Your task to perform on an android device: turn on translation in the chrome app Image 0: 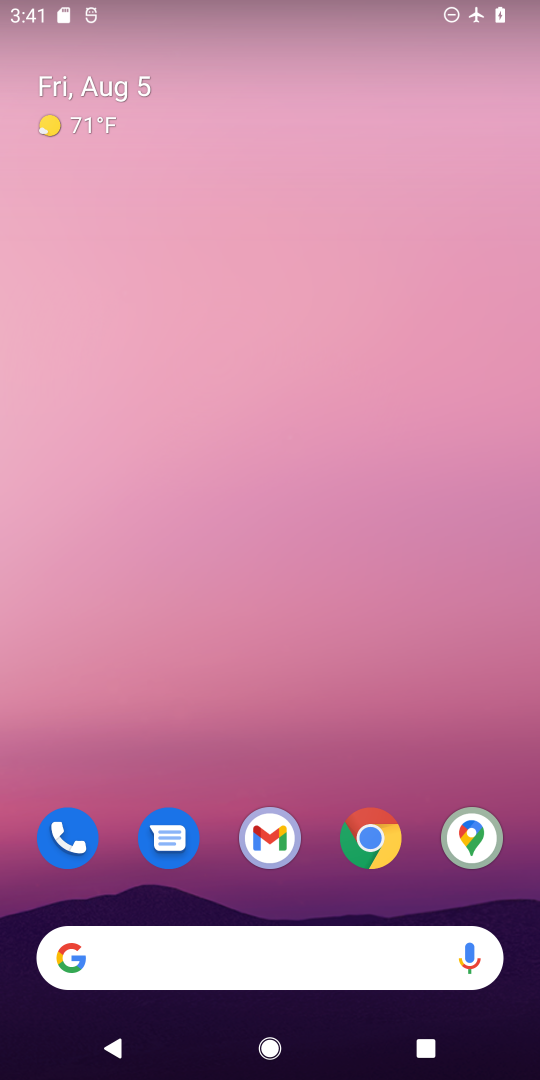
Step 0: drag from (314, 781) to (227, 37)
Your task to perform on an android device: turn on translation in the chrome app Image 1: 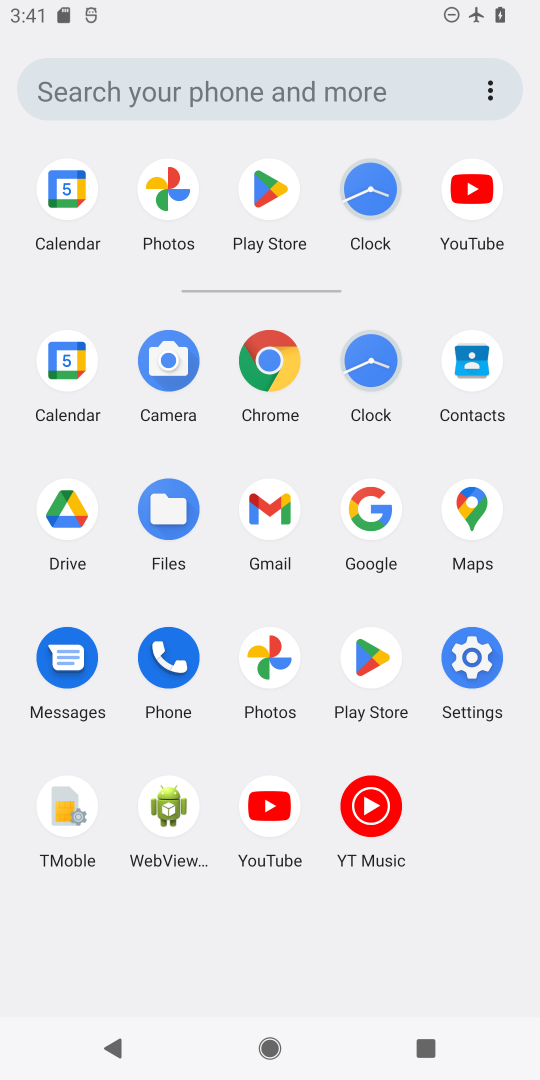
Step 1: click (296, 363)
Your task to perform on an android device: turn on translation in the chrome app Image 2: 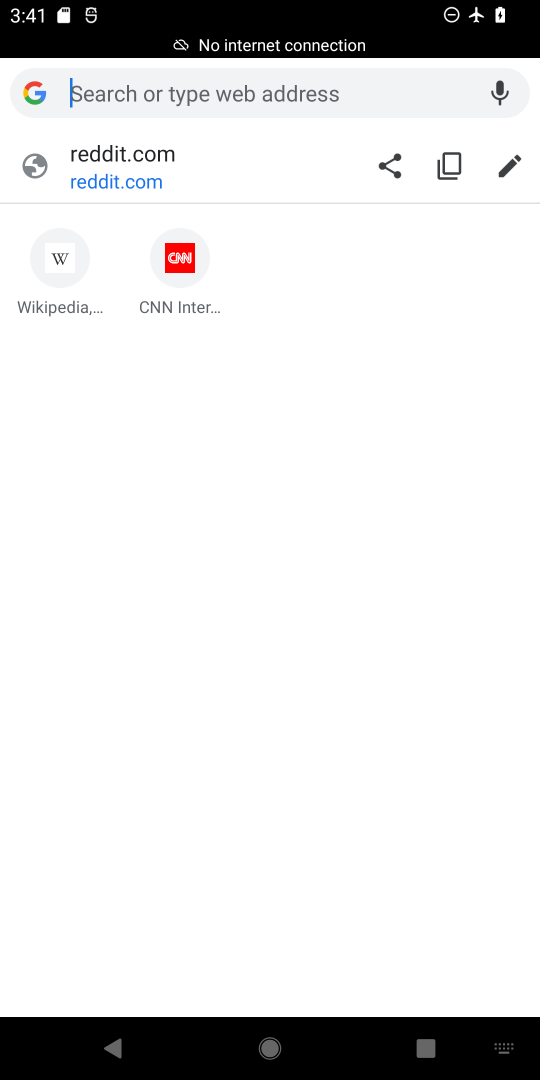
Step 2: press back button
Your task to perform on an android device: turn on translation in the chrome app Image 3: 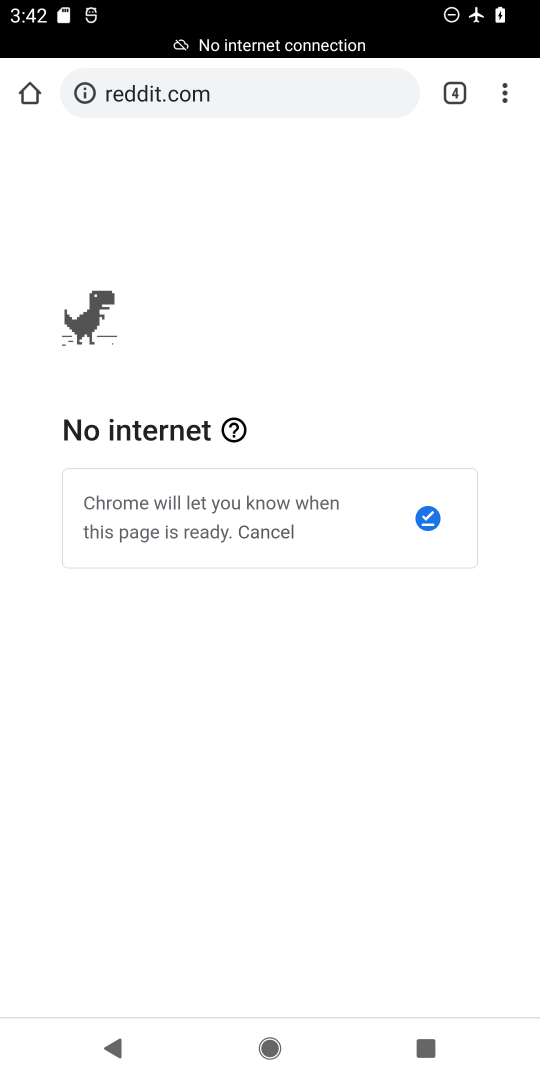
Step 3: click (509, 91)
Your task to perform on an android device: turn on translation in the chrome app Image 4: 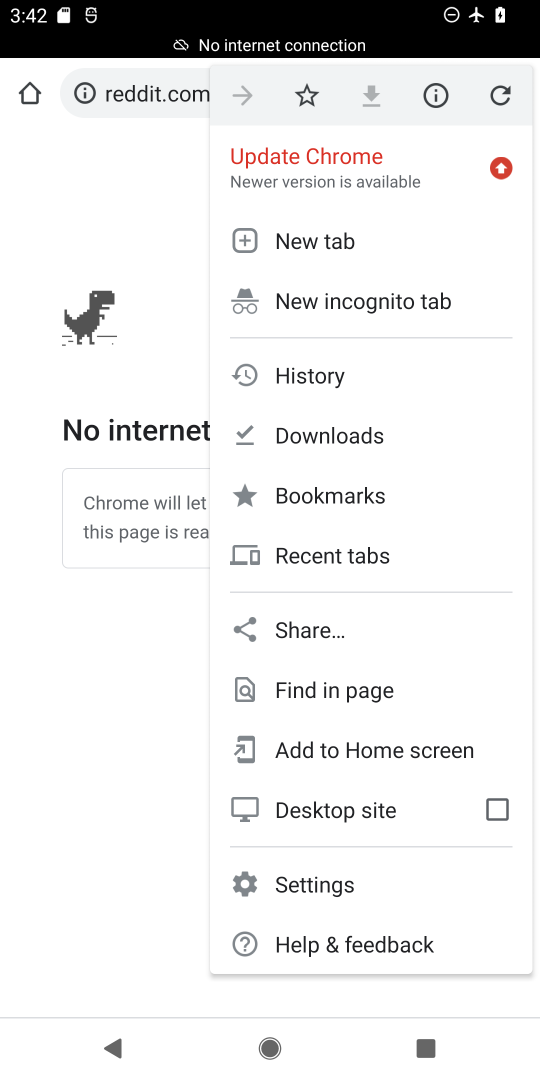
Step 4: click (355, 883)
Your task to perform on an android device: turn on translation in the chrome app Image 5: 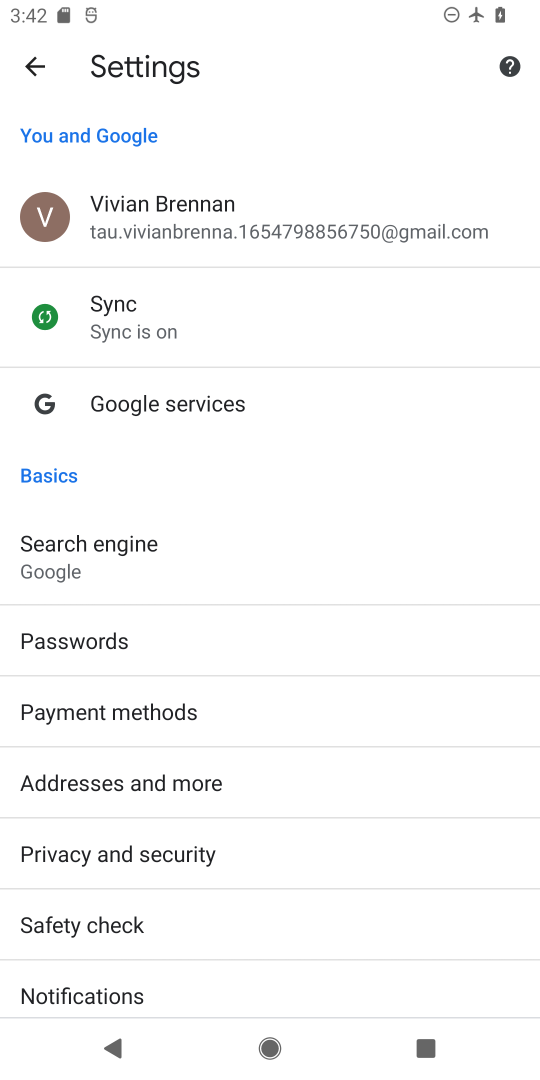
Step 5: drag from (357, 966) to (282, 48)
Your task to perform on an android device: turn on translation in the chrome app Image 6: 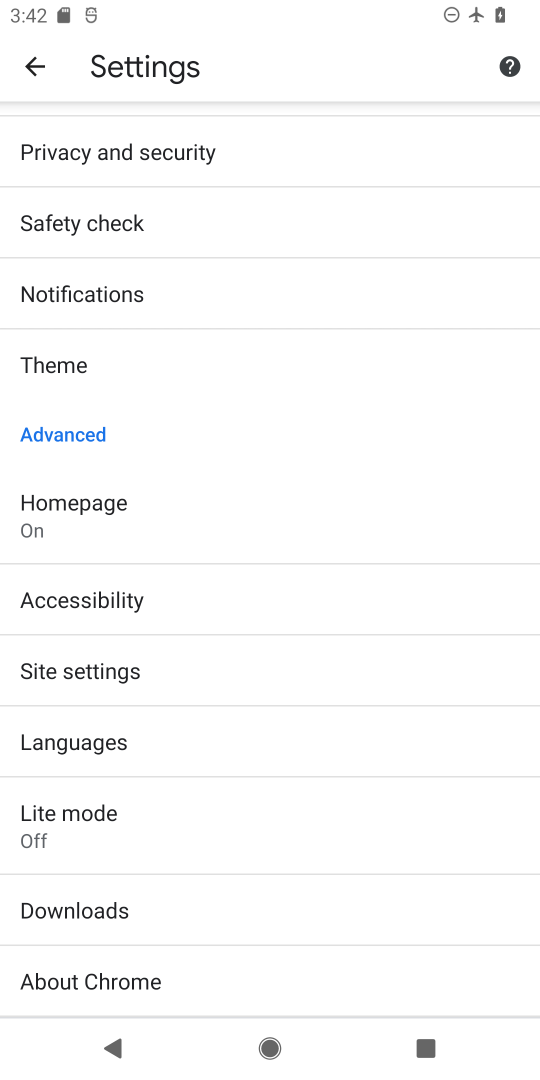
Step 6: click (262, 752)
Your task to perform on an android device: turn on translation in the chrome app Image 7: 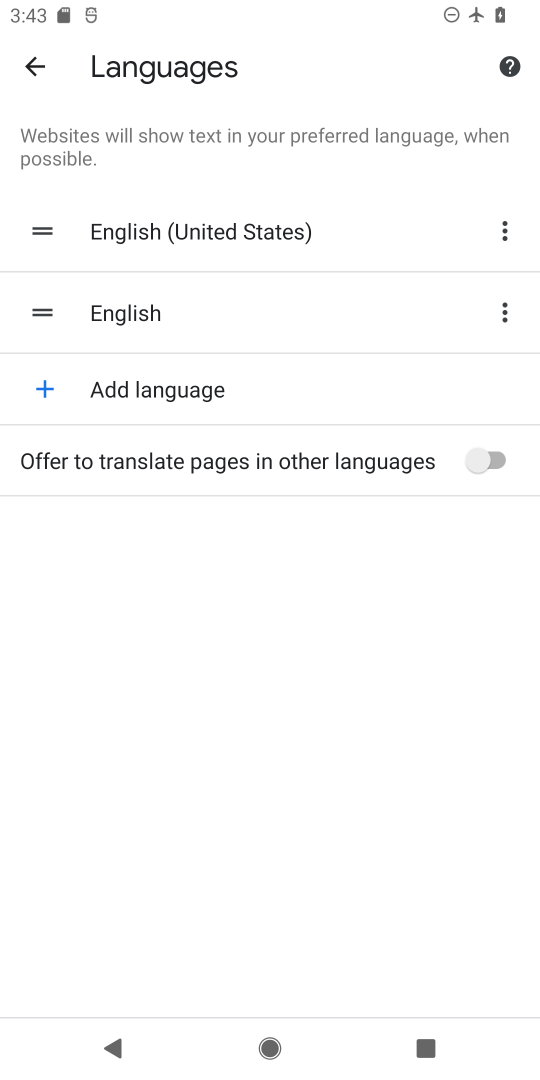
Step 7: click (514, 486)
Your task to perform on an android device: turn on translation in the chrome app Image 8: 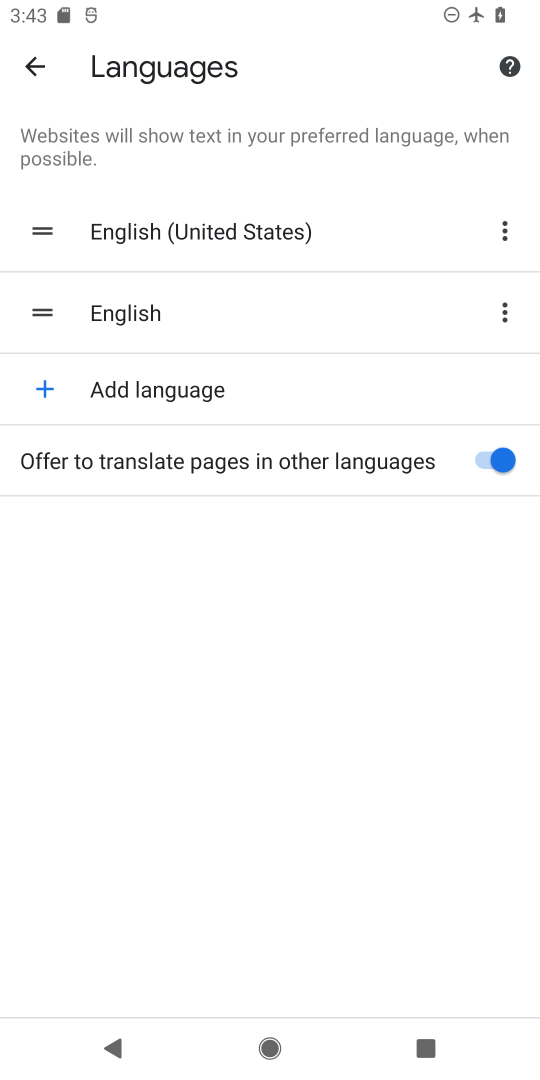
Step 8: task complete